Your task to perform on an android device: Go to battery settings Image 0: 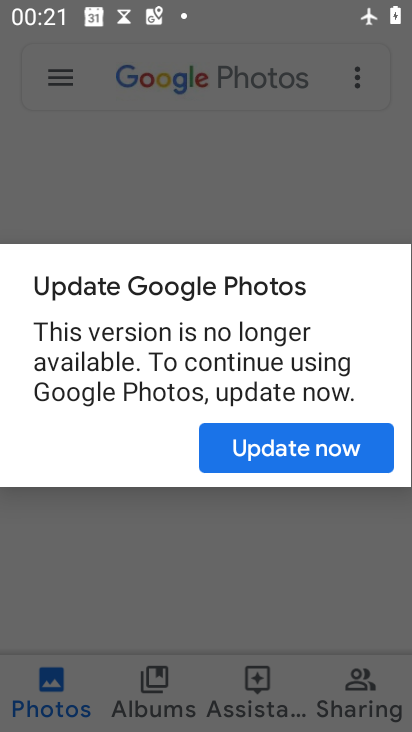
Step 0: press home button
Your task to perform on an android device: Go to battery settings Image 1: 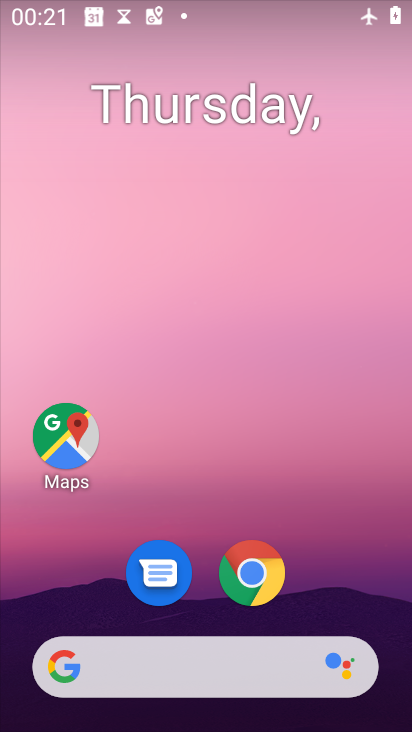
Step 1: drag from (352, 402) to (354, 263)
Your task to perform on an android device: Go to battery settings Image 2: 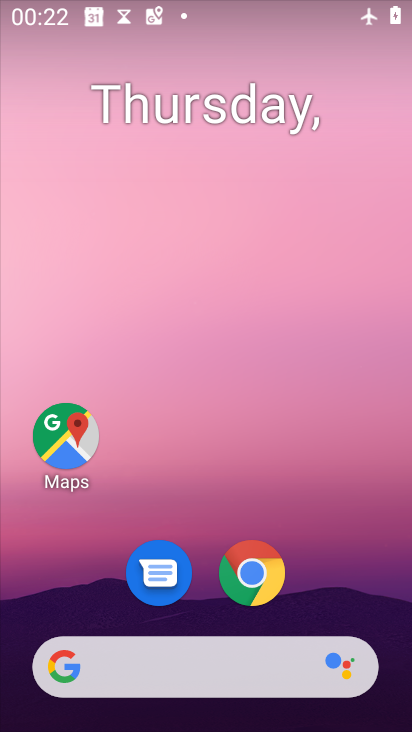
Step 2: drag from (311, 484) to (295, 289)
Your task to perform on an android device: Go to battery settings Image 3: 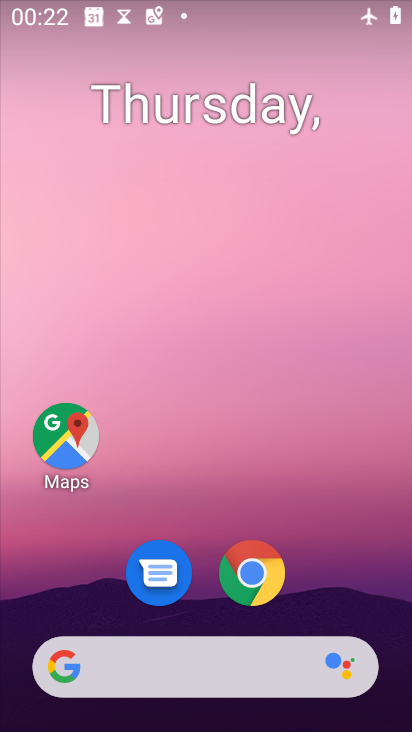
Step 3: drag from (326, 600) to (303, 283)
Your task to perform on an android device: Go to battery settings Image 4: 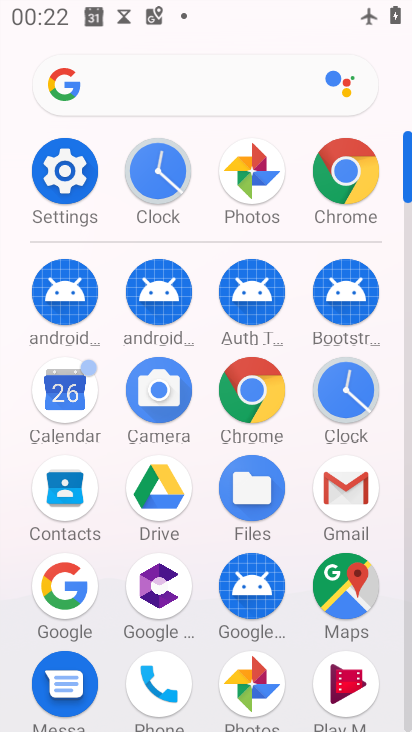
Step 4: click (77, 169)
Your task to perform on an android device: Go to battery settings Image 5: 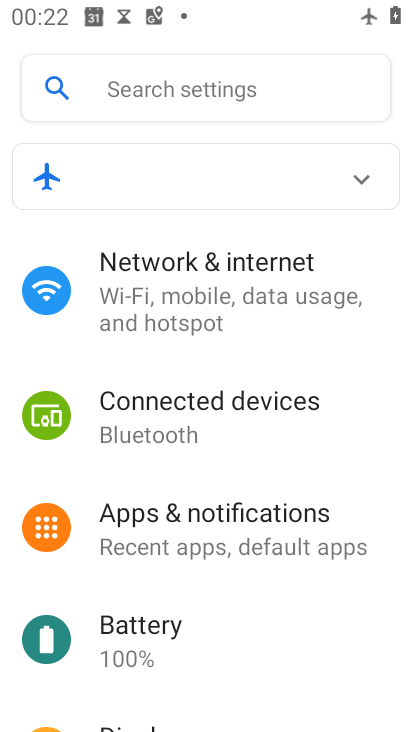
Step 5: drag from (208, 470) to (211, 421)
Your task to perform on an android device: Go to battery settings Image 6: 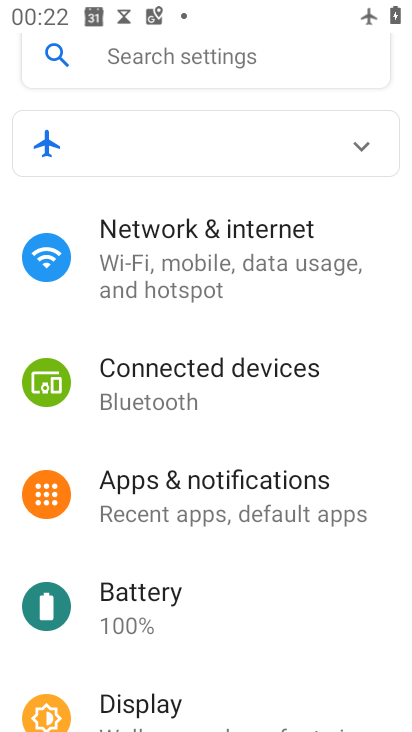
Step 6: click (161, 601)
Your task to perform on an android device: Go to battery settings Image 7: 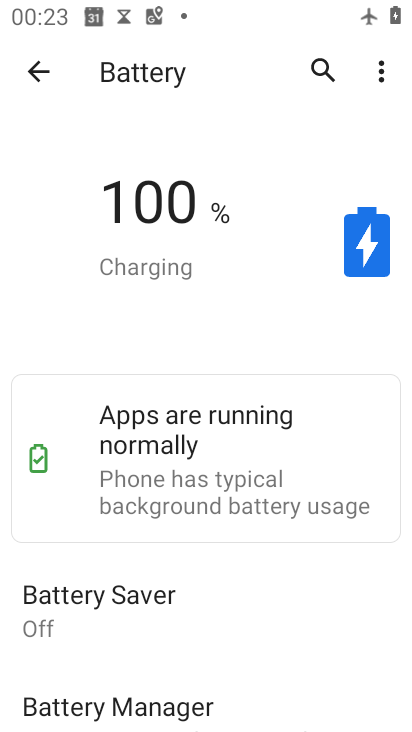
Step 7: task complete